Your task to perform on an android device: turn off picture-in-picture Image 0: 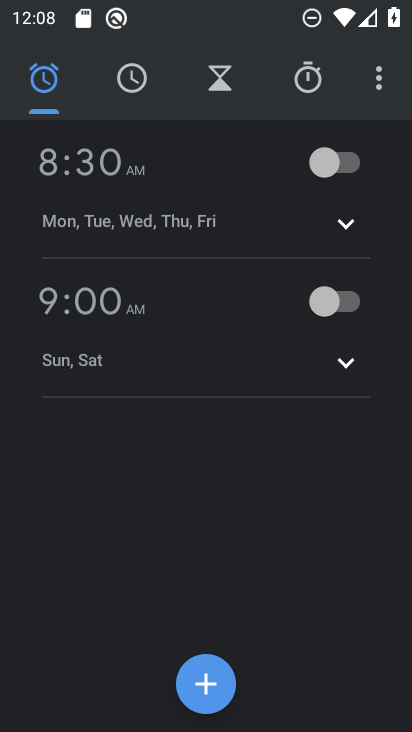
Step 0: press home button
Your task to perform on an android device: turn off picture-in-picture Image 1: 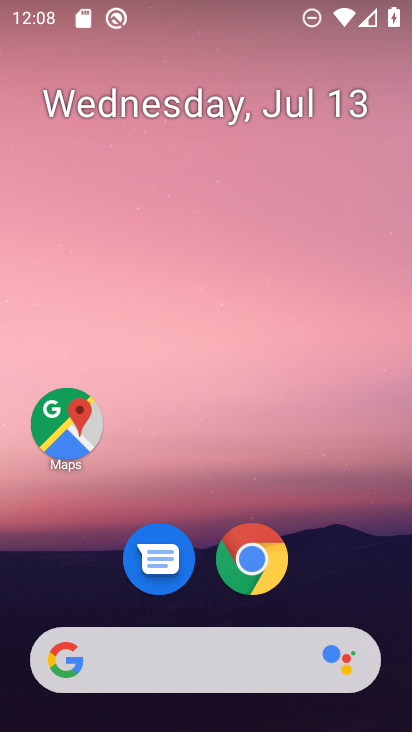
Step 1: drag from (136, 623) to (165, 125)
Your task to perform on an android device: turn off picture-in-picture Image 2: 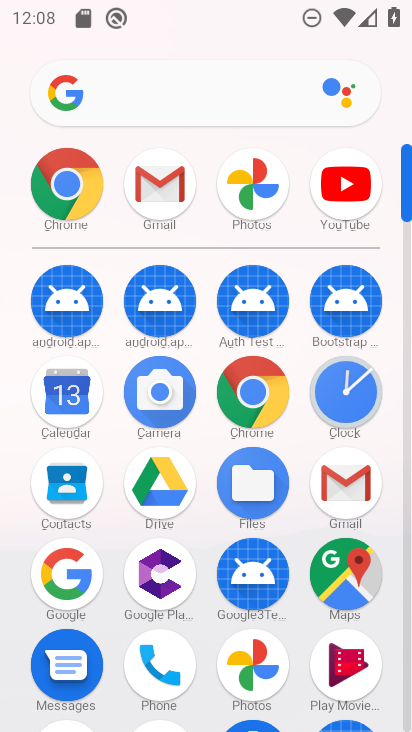
Step 2: drag from (232, 556) to (231, 219)
Your task to perform on an android device: turn off picture-in-picture Image 3: 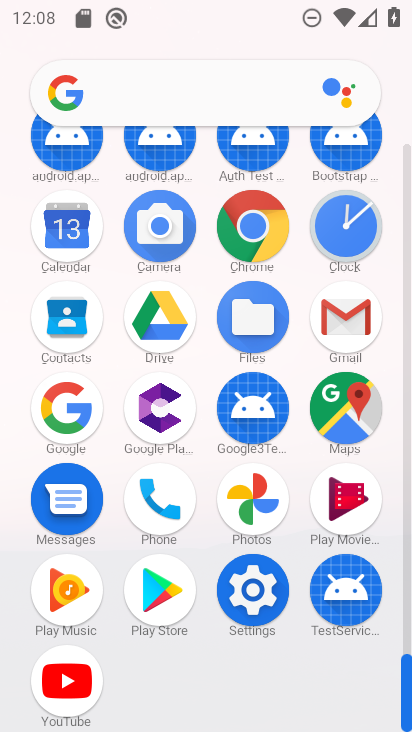
Step 3: click (258, 576)
Your task to perform on an android device: turn off picture-in-picture Image 4: 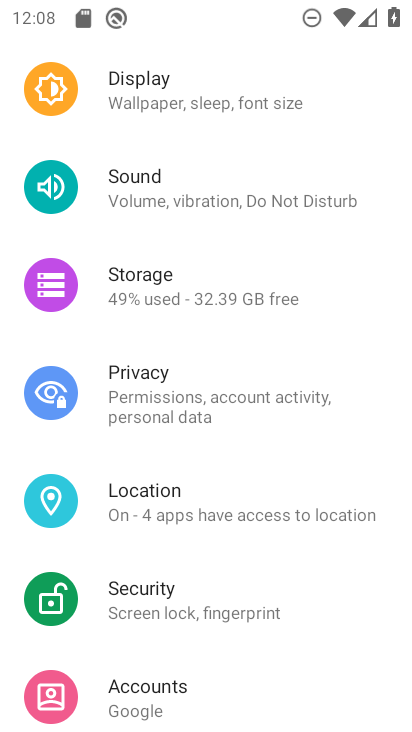
Step 4: drag from (207, 397) to (225, 615)
Your task to perform on an android device: turn off picture-in-picture Image 5: 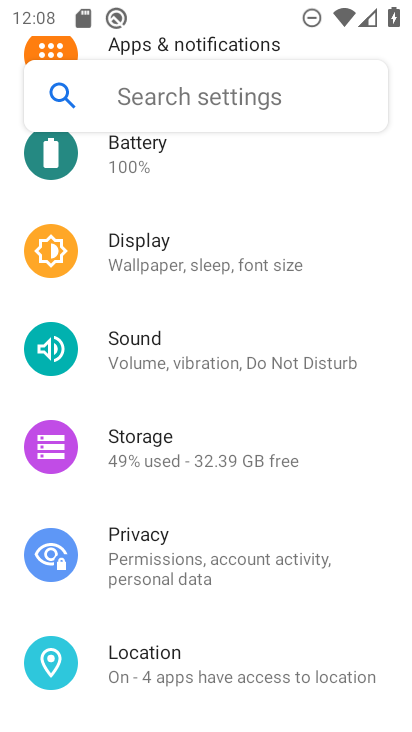
Step 5: drag from (223, 395) to (221, 691)
Your task to perform on an android device: turn off picture-in-picture Image 6: 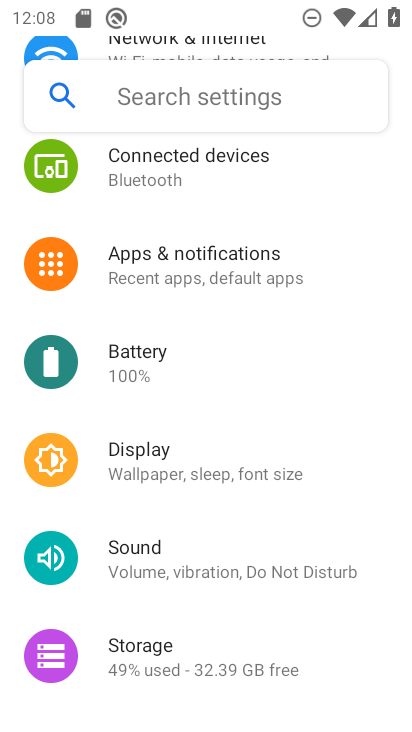
Step 6: click (202, 259)
Your task to perform on an android device: turn off picture-in-picture Image 7: 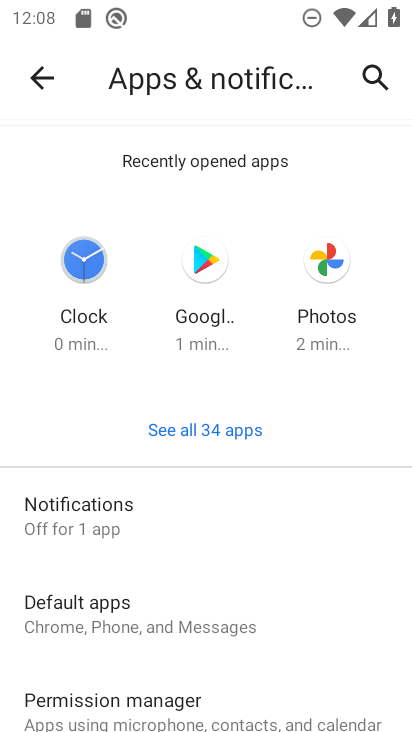
Step 7: drag from (208, 567) to (233, 243)
Your task to perform on an android device: turn off picture-in-picture Image 8: 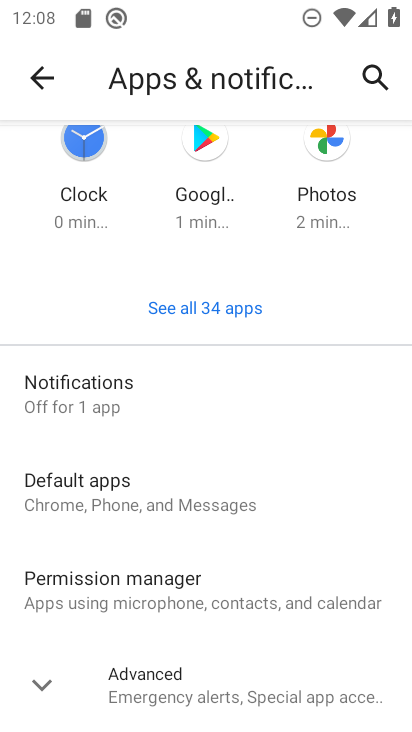
Step 8: click (174, 674)
Your task to perform on an android device: turn off picture-in-picture Image 9: 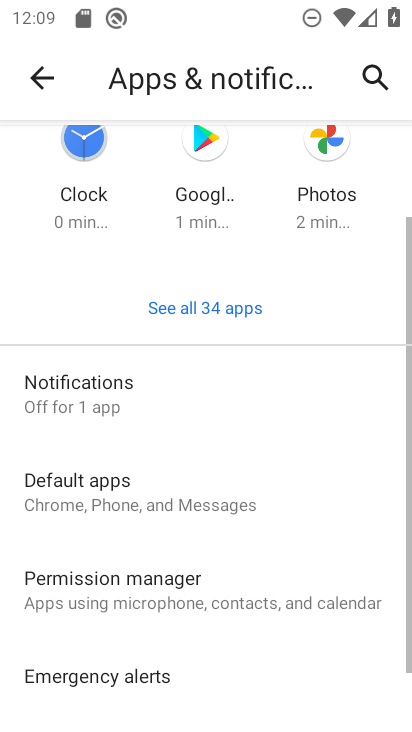
Step 9: drag from (193, 654) to (185, 357)
Your task to perform on an android device: turn off picture-in-picture Image 10: 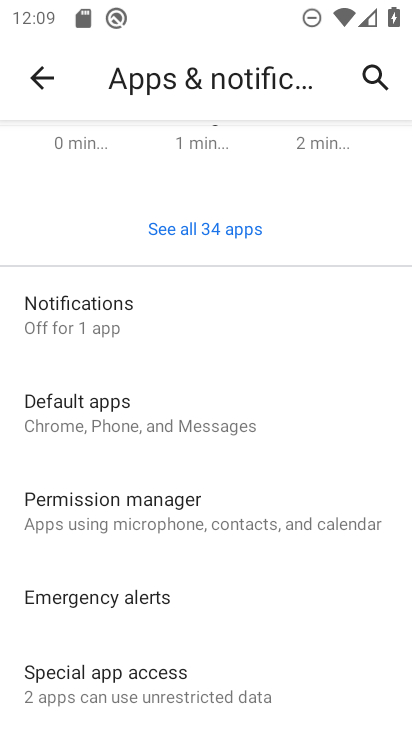
Step 10: click (175, 696)
Your task to perform on an android device: turn off picture-in-picture Image 11: 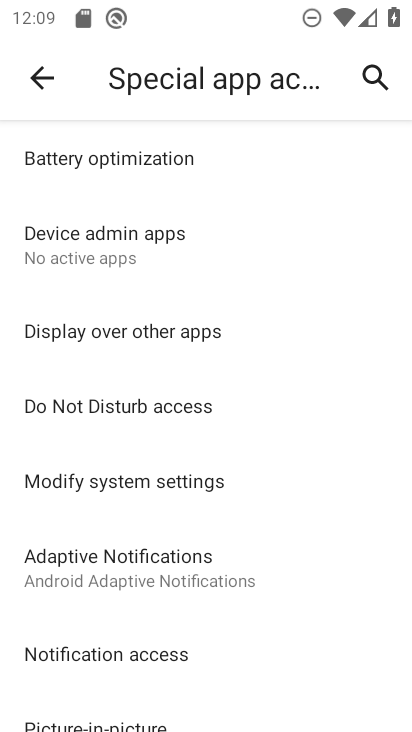
Step 11: drag from (162, 606) to (179, 323)
Your task to perform on an android device: turn off picture-in-picture Image 12: 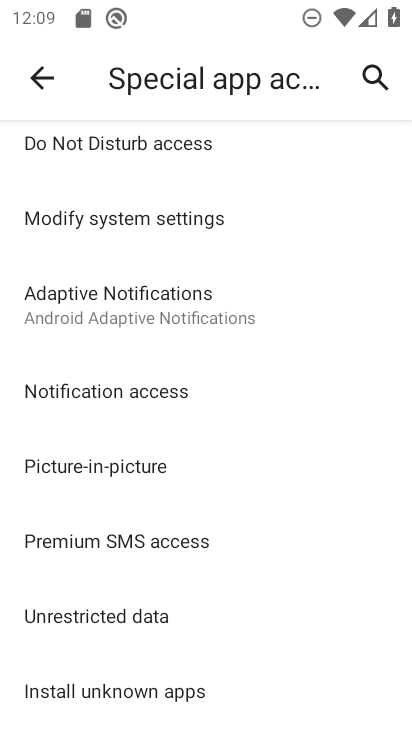
Step 12: click (155, 458)
Your task to perform on an android device: turn off picture-in-picture Image 13: 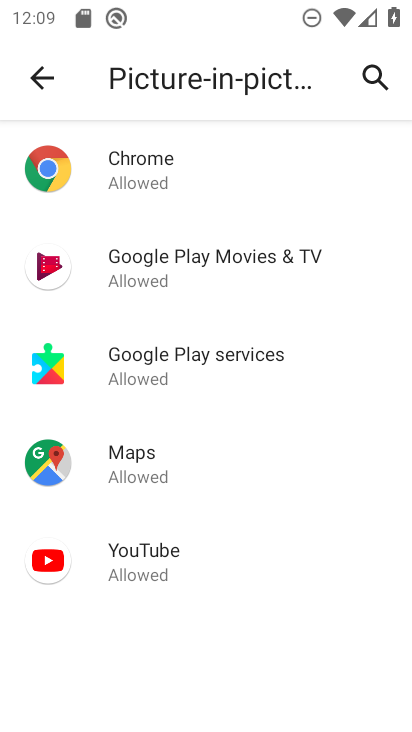
Step 13: click (139, 186)
Your task to perform on an android device: turn off picture-in-picture Image 14: 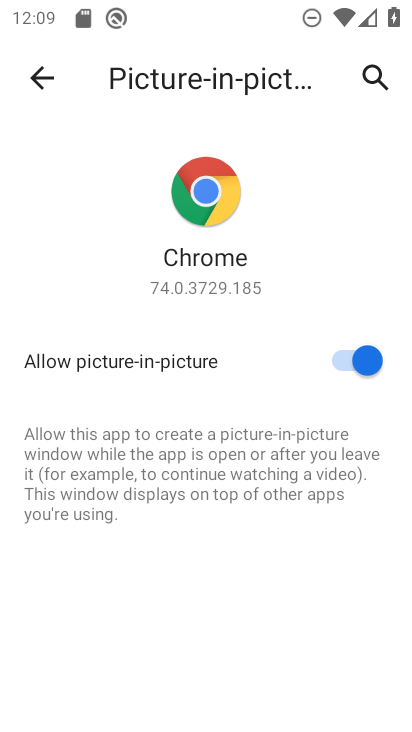
Step 14: click (337, 357)
Your task to perform on an android device: turn off picture-in-picture Image 15: 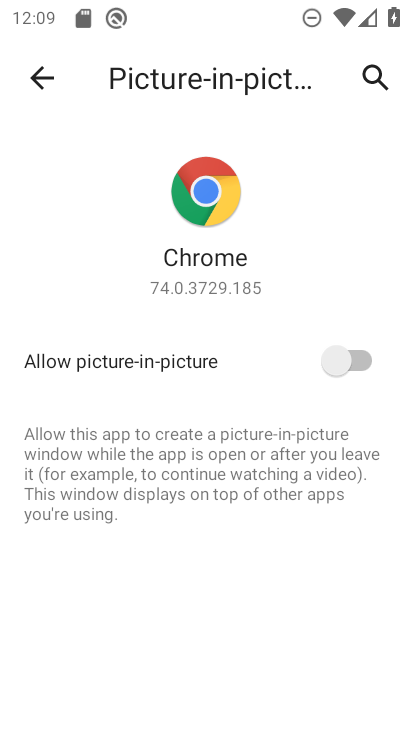
Step 15: task complete